Your task to perform on an android device: What's the weather going to be this weekend? Image 0: 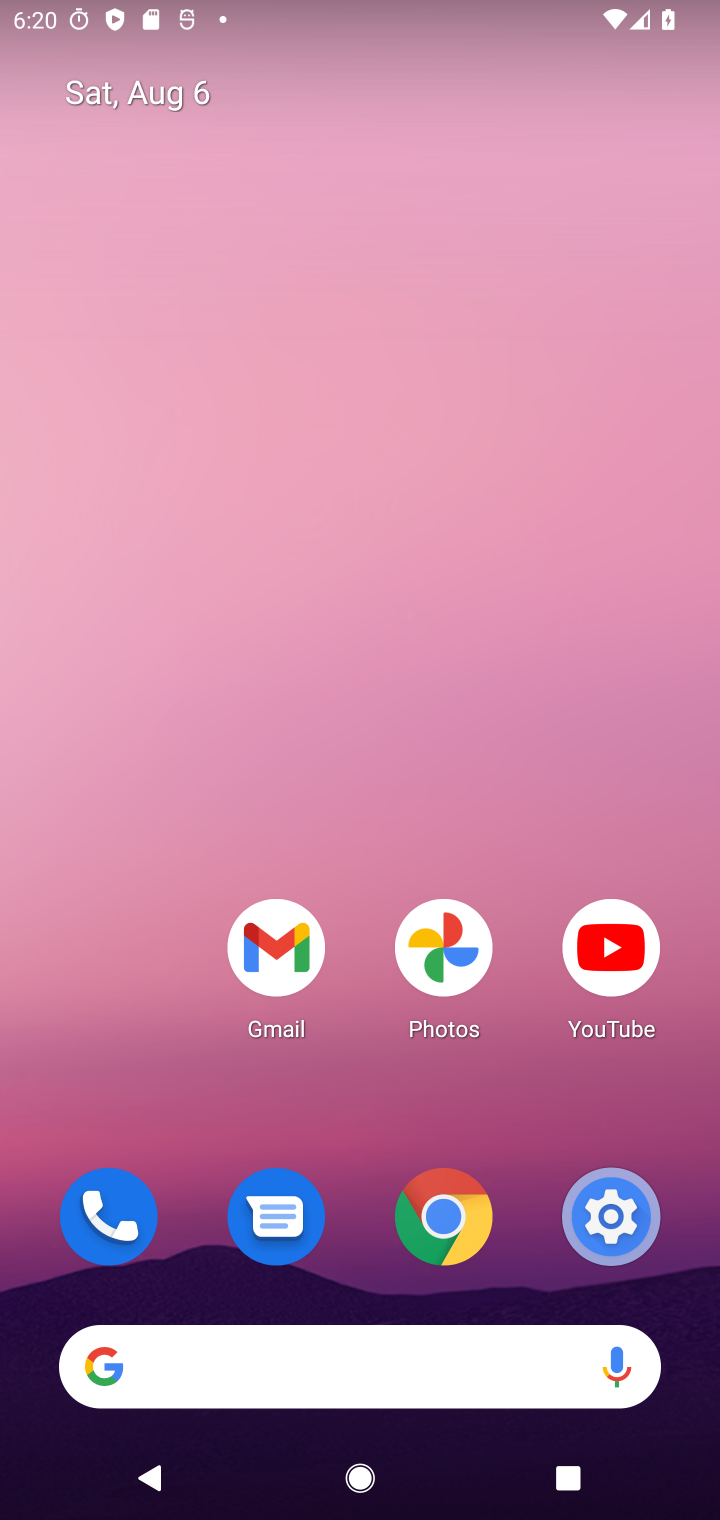
Step 0: drag from (530, 1082) to (519, 154)
Your task to perform on an android device: What's the weather going to be this weekend? Image 1: 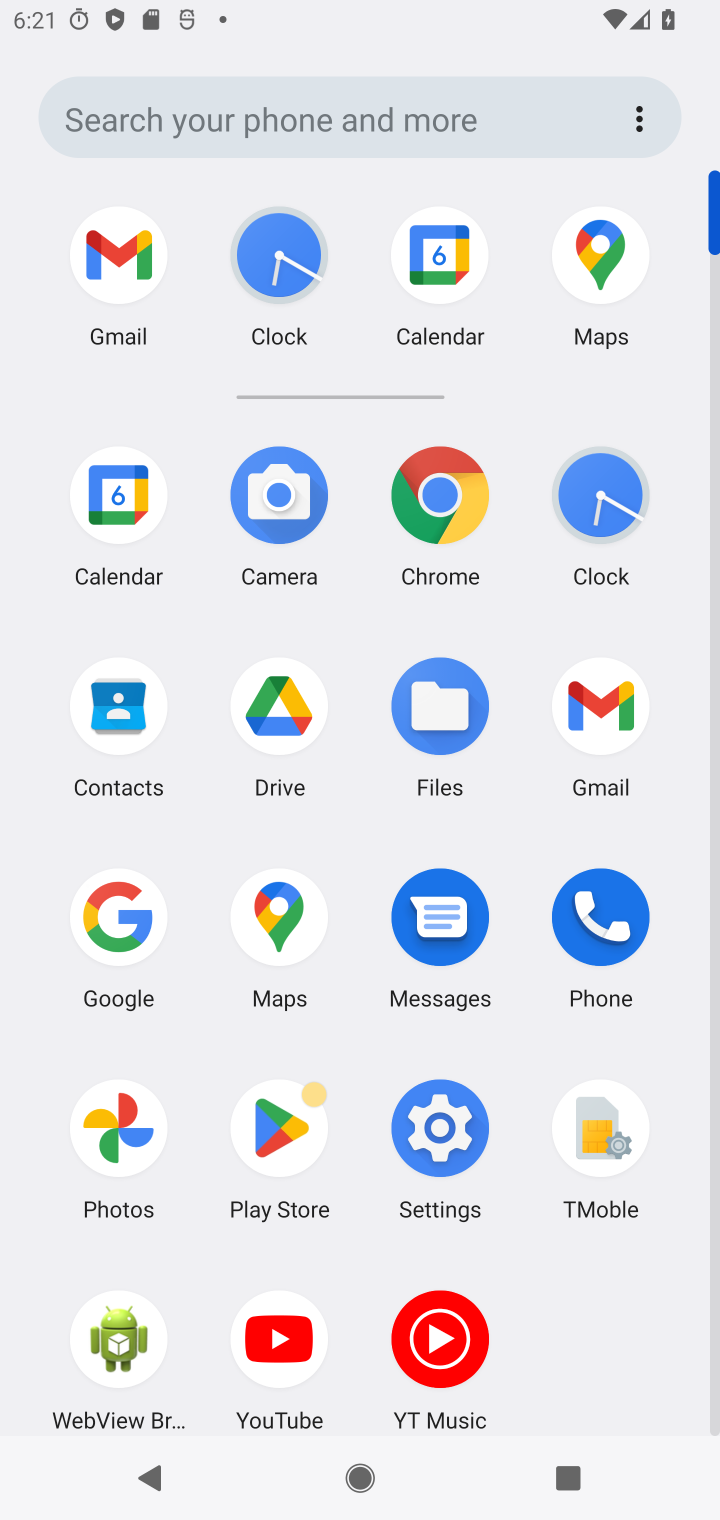
Step 1: click (439, 496)
Your task to perform on an android device: What's the weather going to be this weekend? Image 2: 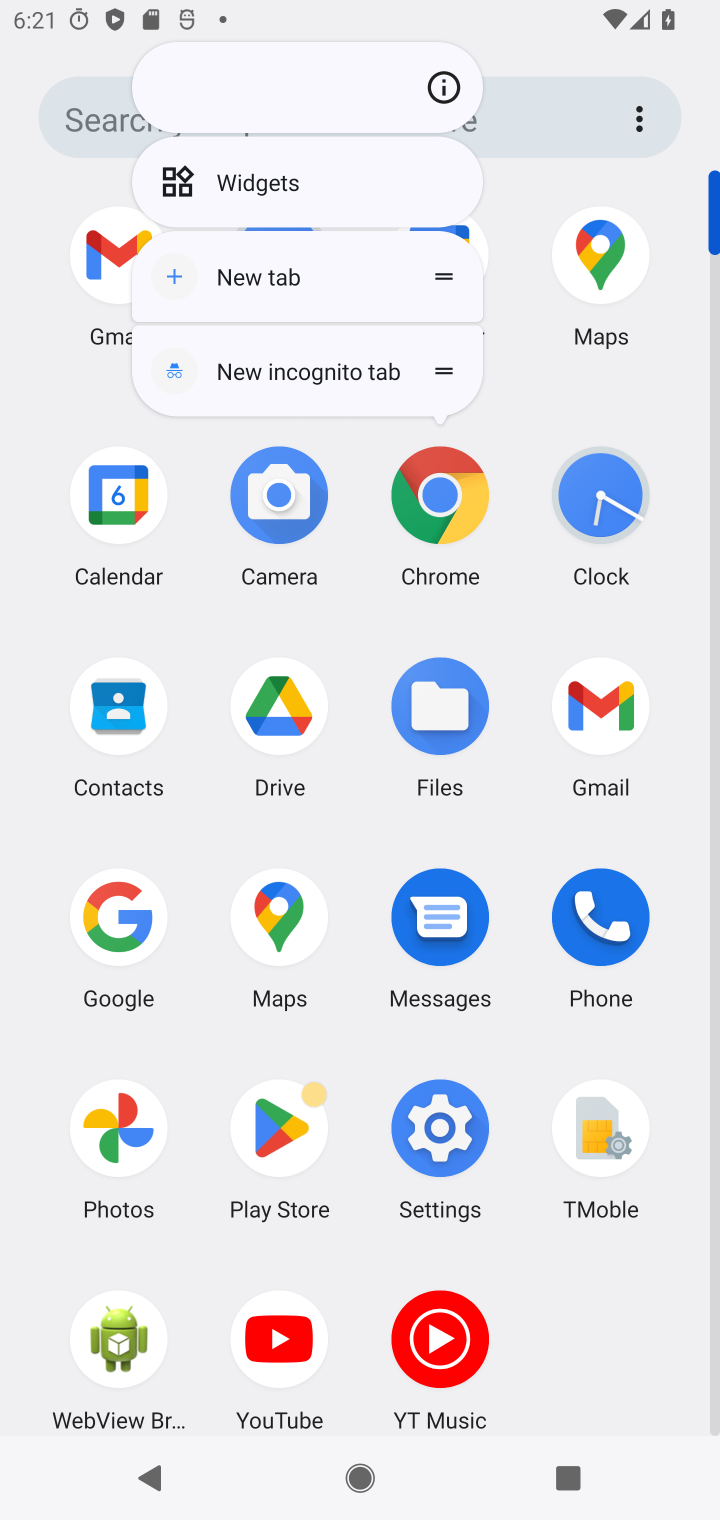
Step 2: click (432, 496)
Your task to perform on an android device: What's the weather going to be this weekend? Image 3: 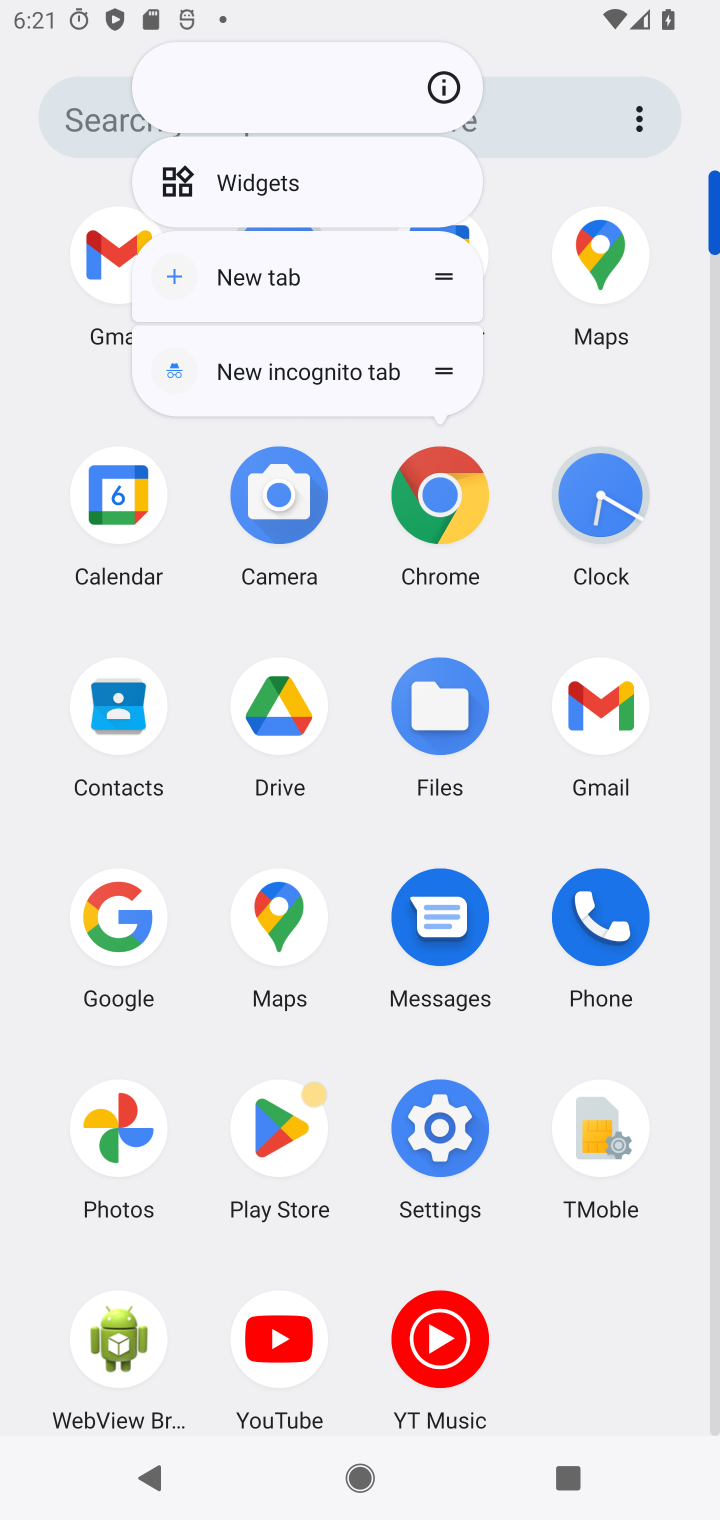
Step 3: click (506, 801)
Your task to perform on an android device: What's the weather going to be this weekend? Image 4: 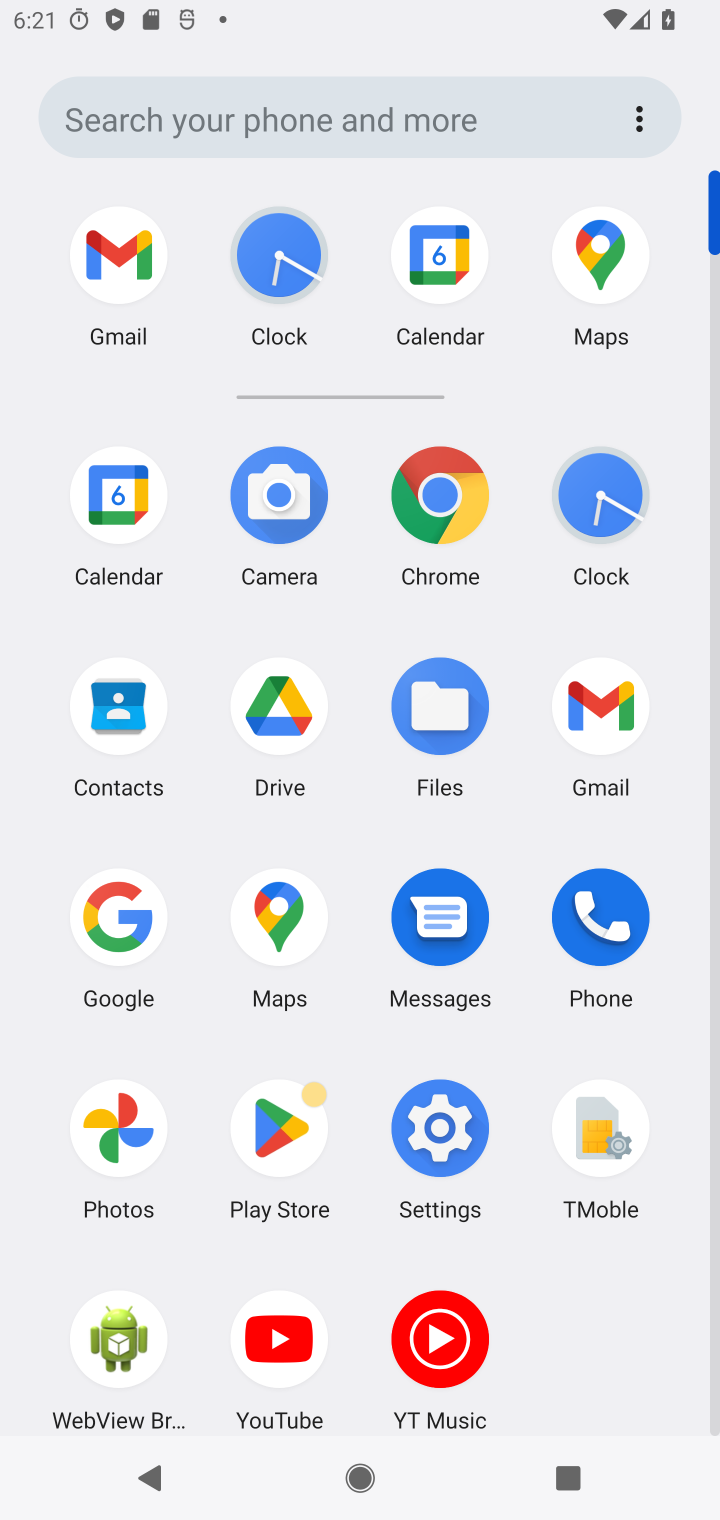
Step 4: click (449, 495)
Your task to perform on an android device: What's the weather going to be this weekend? Image 5: 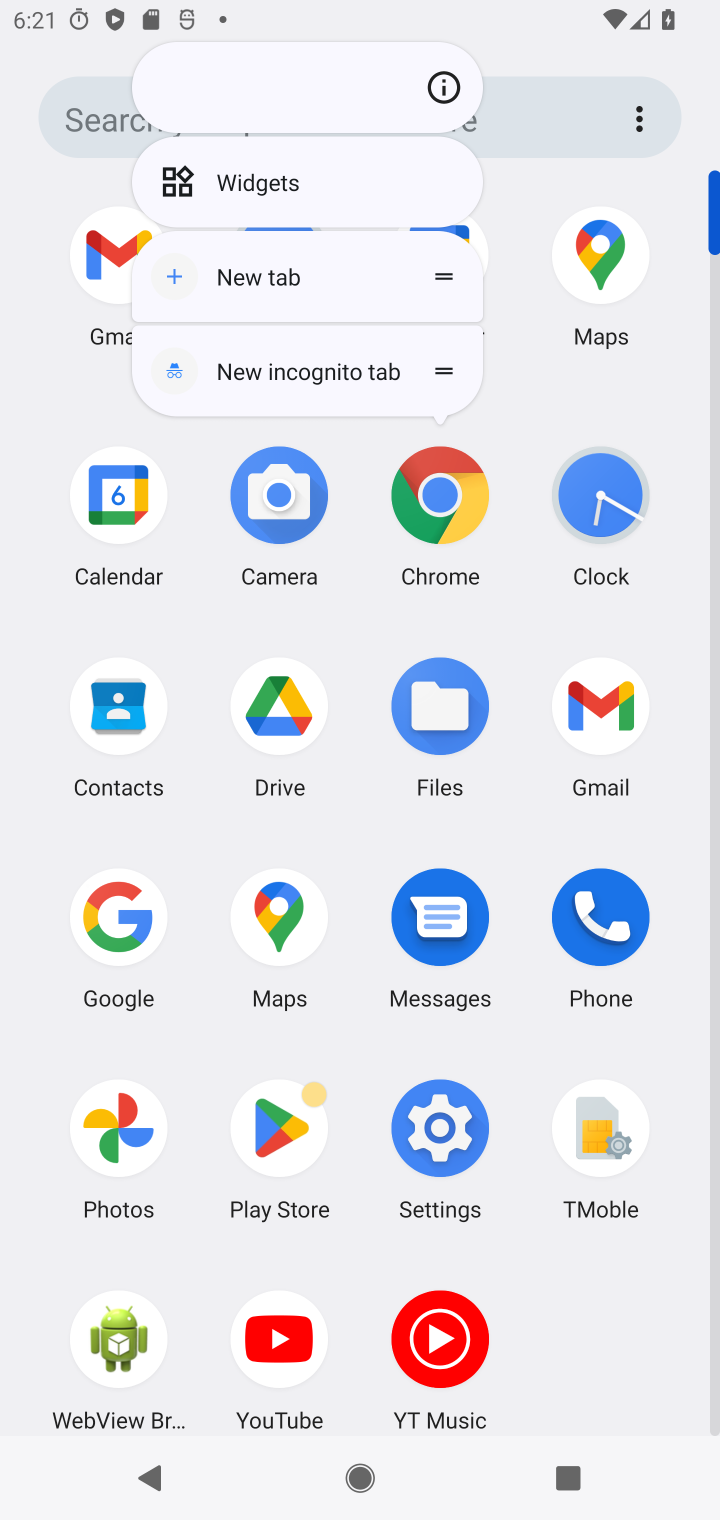
Step 5: click (438, 505)
Your task to perform on an android device: What's the weather going to be this weekend? Image 6: 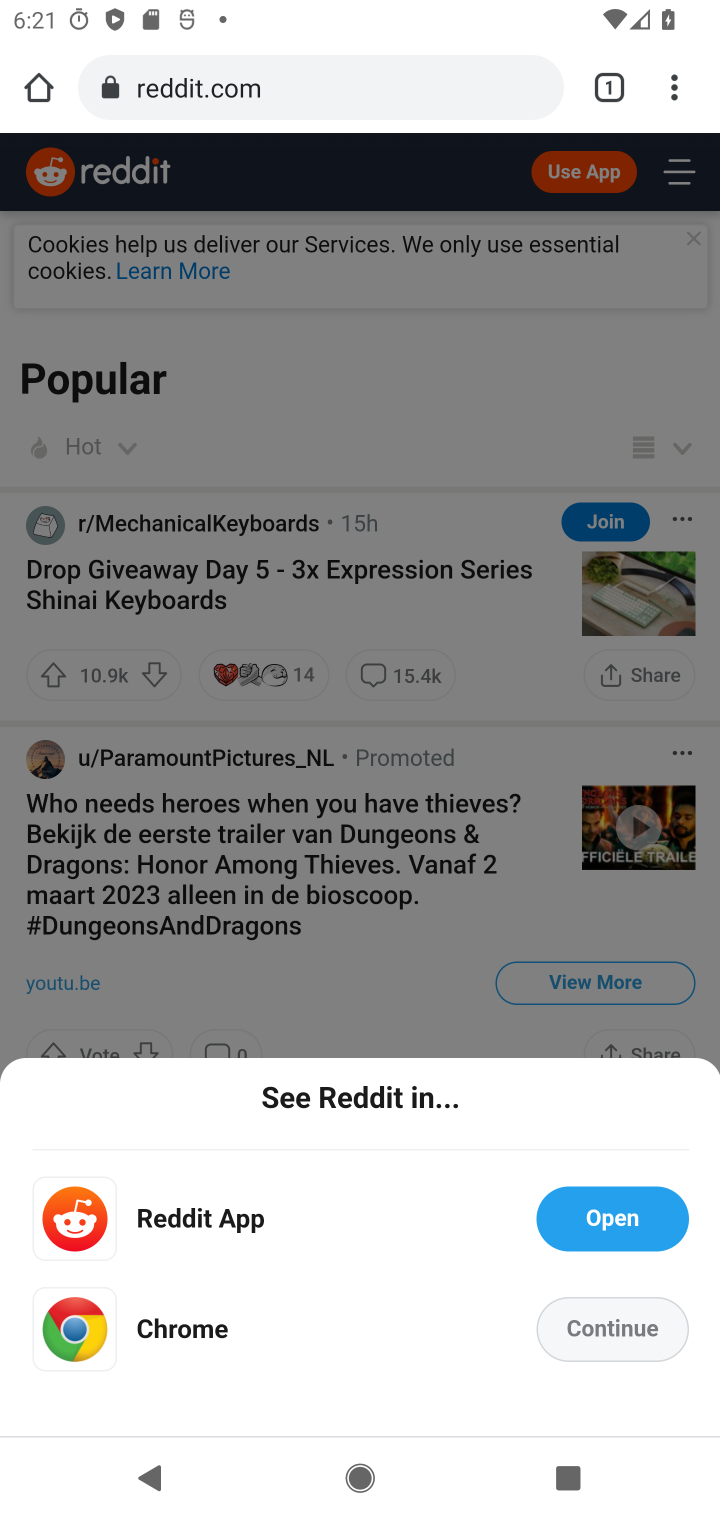
Step 6: click (417, 79)
Your task to perform on an android device: What's the weather going to be this weekend? Image 7: 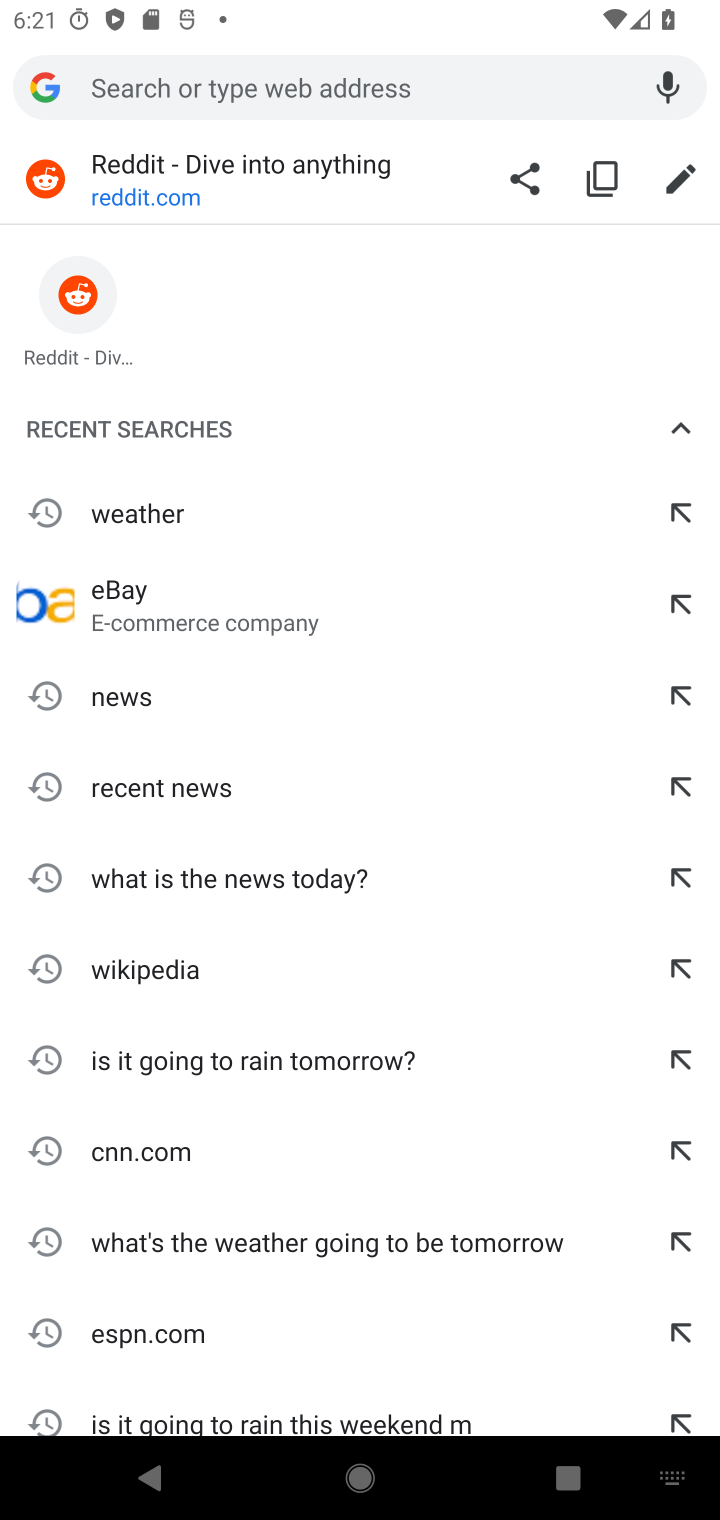
Step 7: type "weather"
Your task to perform on an android device: What's the weather going to be this weekend? Image 8: 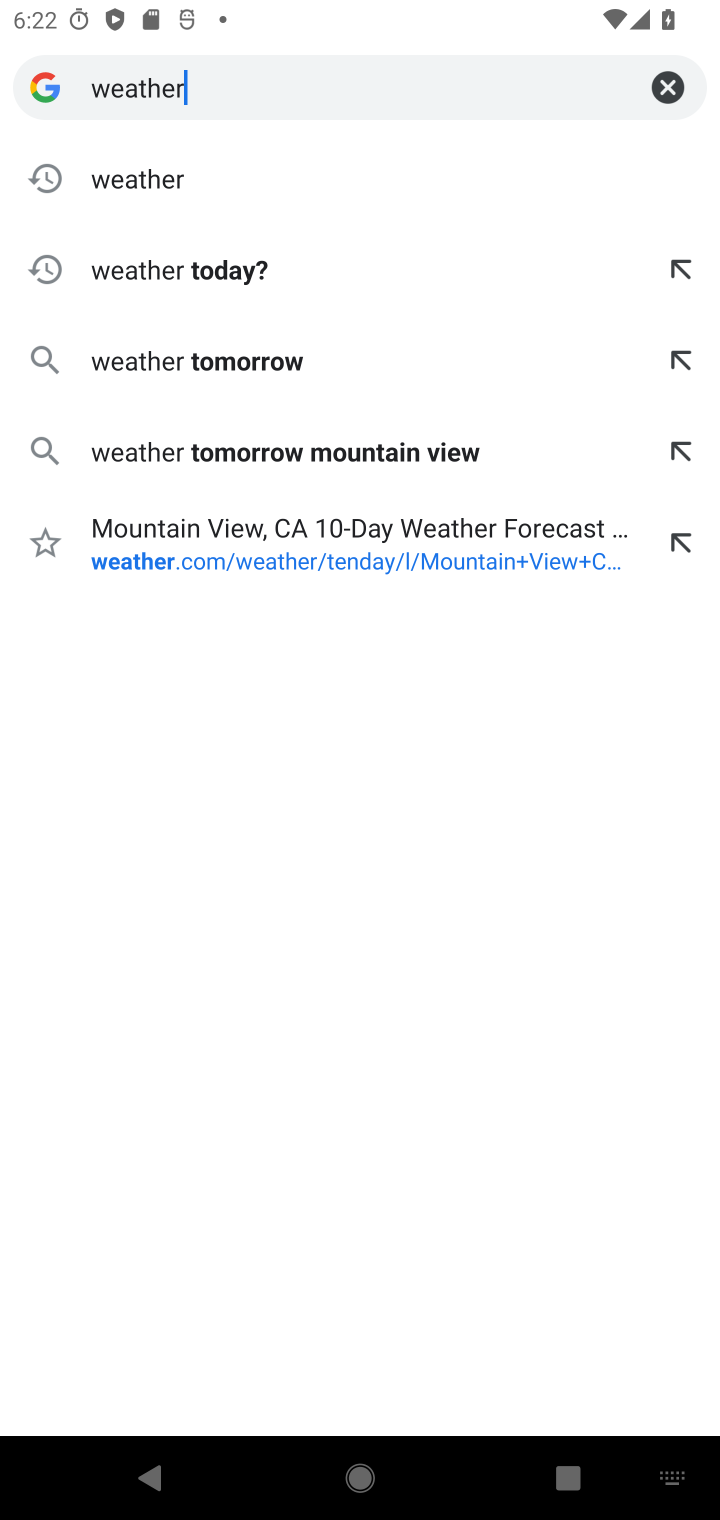
Step 8: click (167, 181)
Your task to perform on an android device: What's the weather going to be this weekend? Image 9: 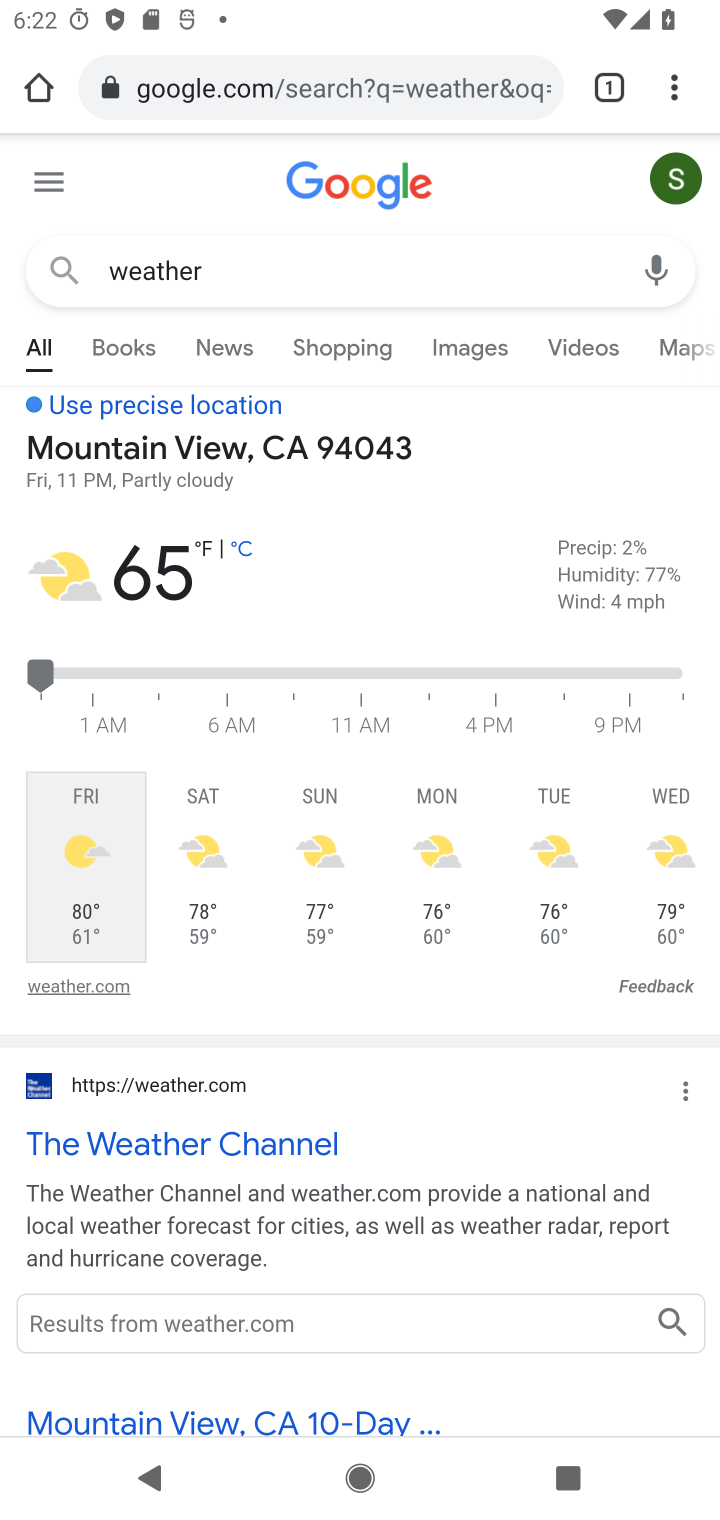
Step 9: click (205, 826)
Your task to perform on an android device: What's the weather going to be this weekend? Image 10: 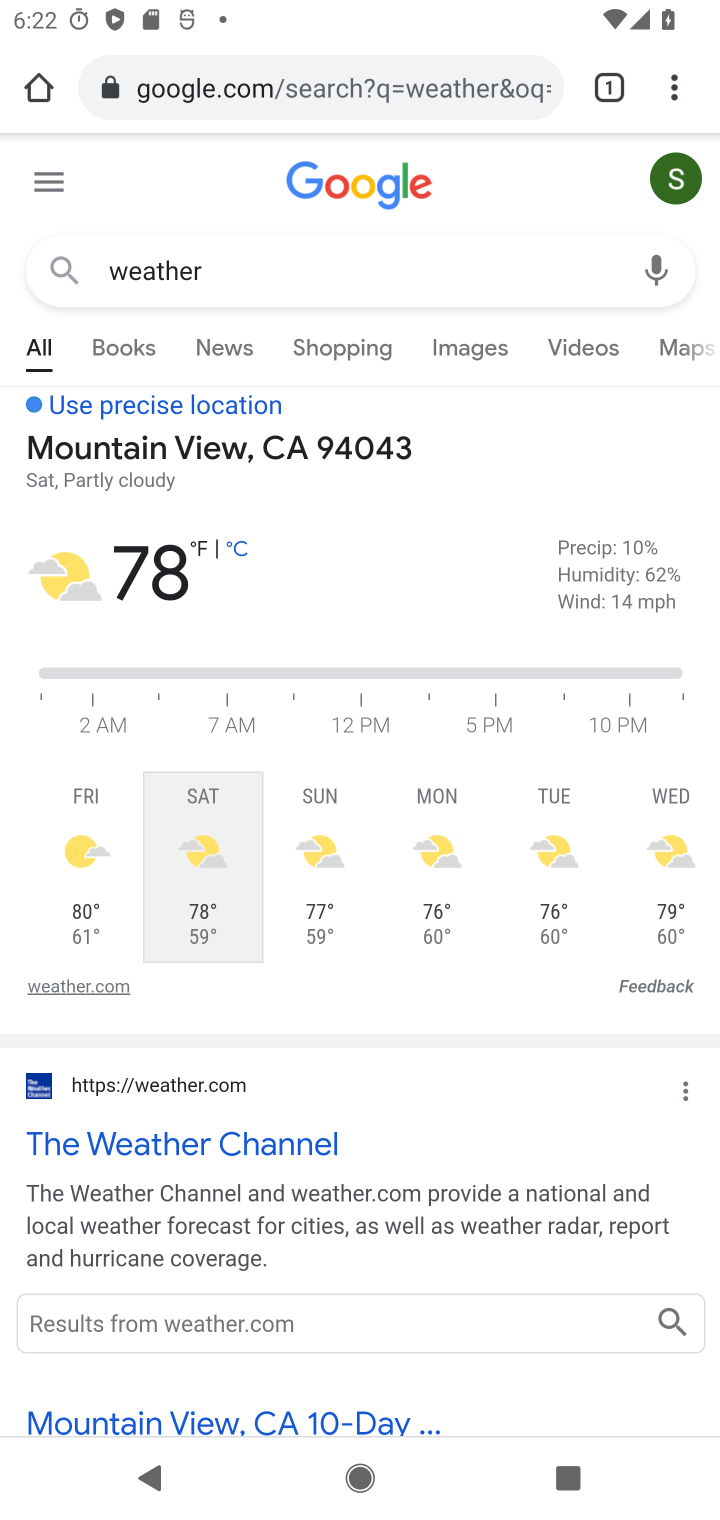
Step 10: task complete